Your task to perform on an android device: find snoozed emails in the gmail app Image 0: 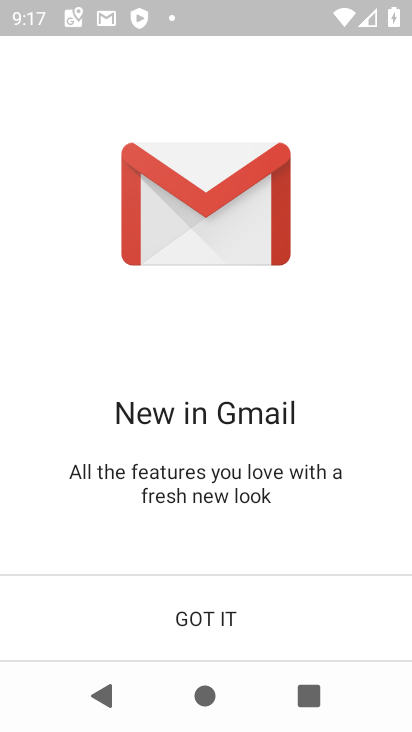
Step 0: click (205, 608)
Your task to perform on an android device: find snoozed emails in the gmail app Image 1: 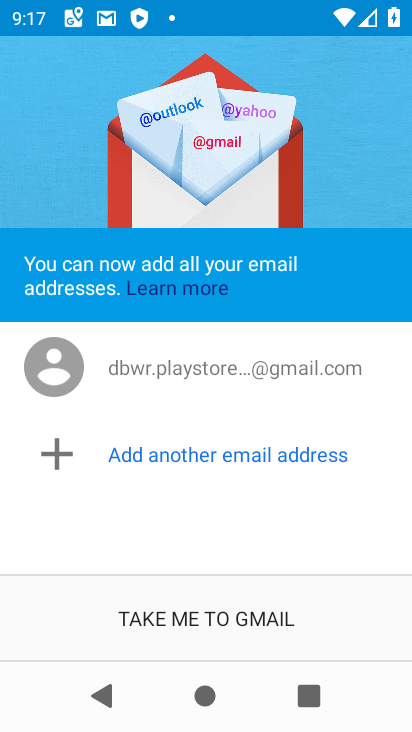
Step 1: click (213, 606)
Your task to perform on an android device: find snoozed emails in the gmail app Image 2: 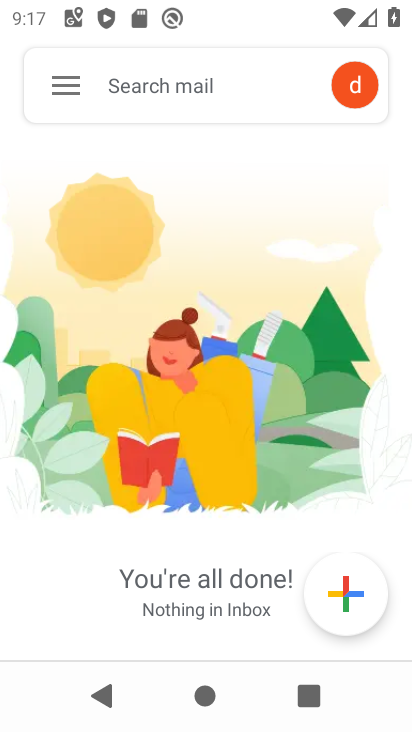
Step 2: click (70, 90)
Your task to perform on an android device: find snoozed emails in the gmail app Image 3: 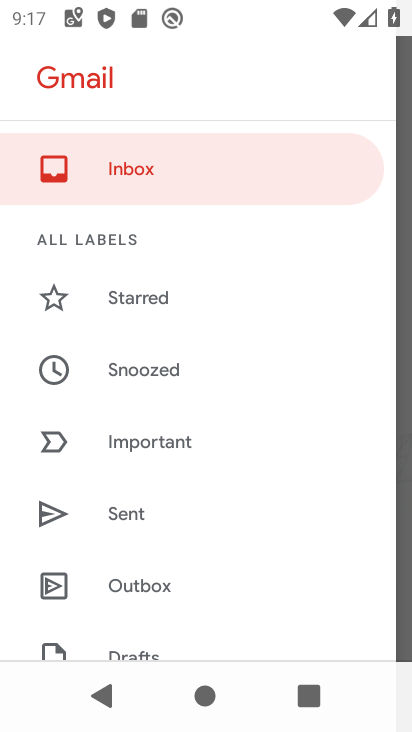
Step 3: click (159, 365)
Your task to perform on an android device: find snoozed emails in the gmail app Image 4: 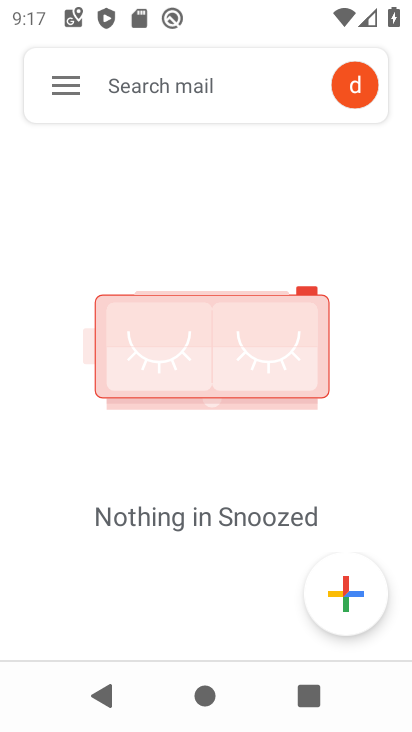
Step 4: task complete